Your task to perform on an android device: Open sound settings Image 0: 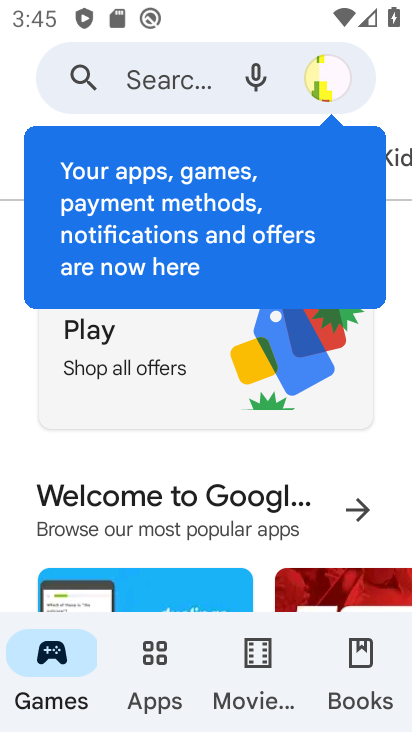
Step 0: press back button
Your task to perform on an android device: Open sound settings Image 1: 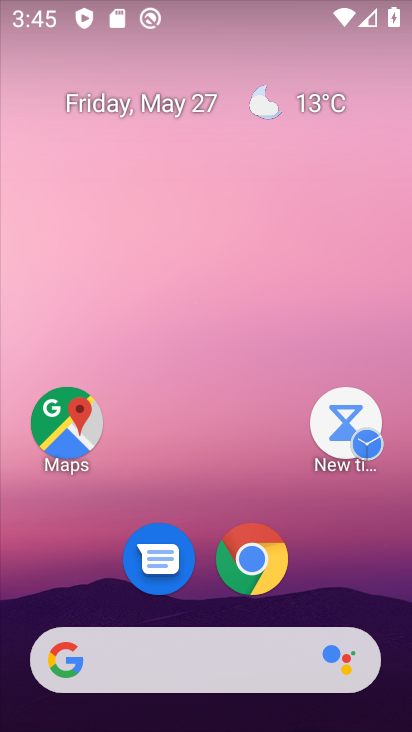
Step 1: drag from (366, 621) to (187, 28)
Your task to perform on an android device: Open sound settings Image 2: 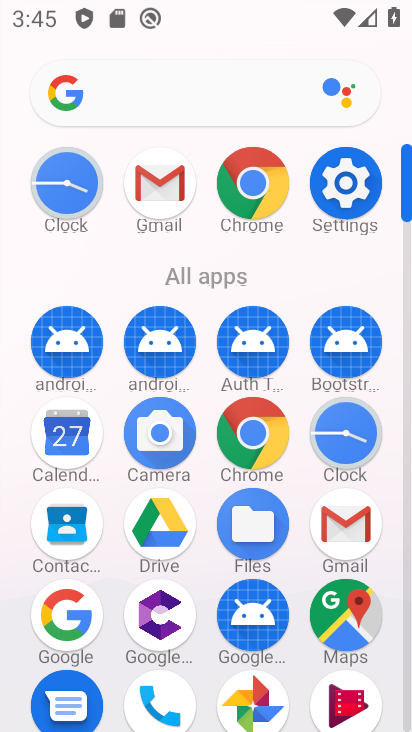
Step 2: click (333, 191)
Your task to perform on an android device: Open sound settings Image 3: 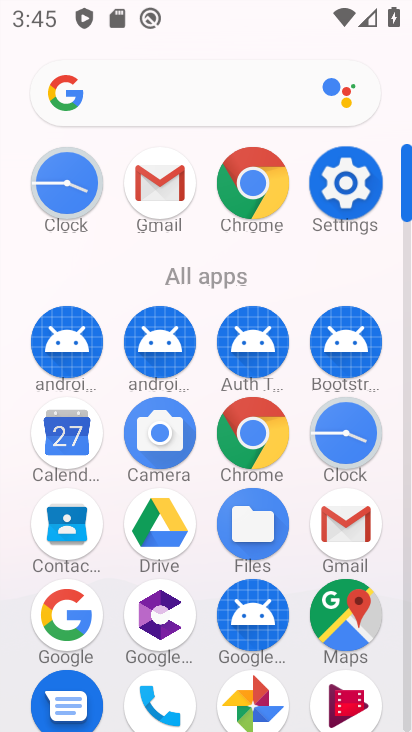
Step 3: click (333, 191)
Your task to perform on an android device: Open sound settings Image 4: 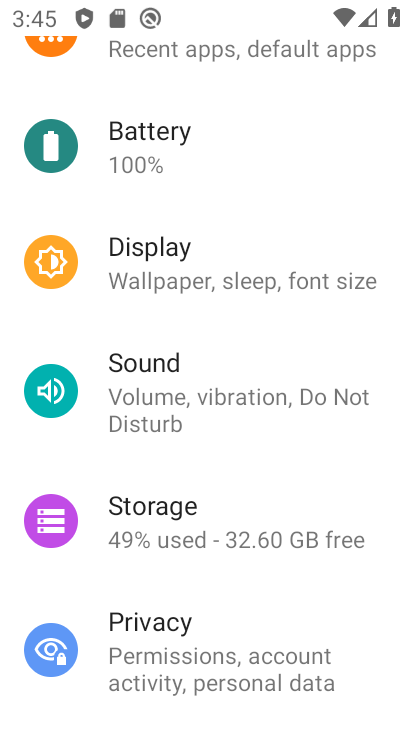
Step 4: click (333, 191)
Your task to perform on an android device: Open sound settings Image 5: 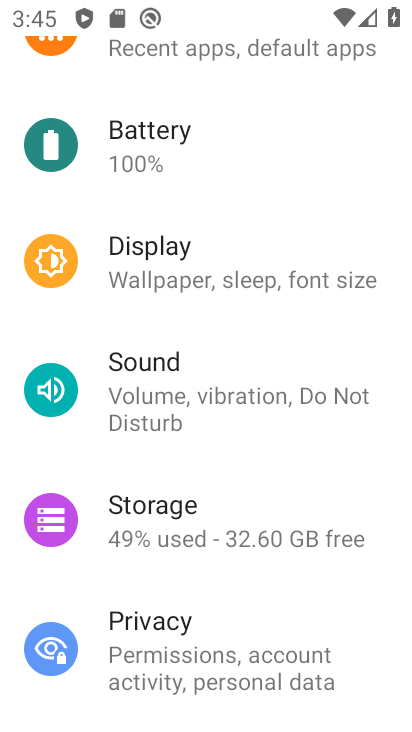
Step 5: click (333, 191)
Your task to perform on an android device: Open sound settings Image 6: 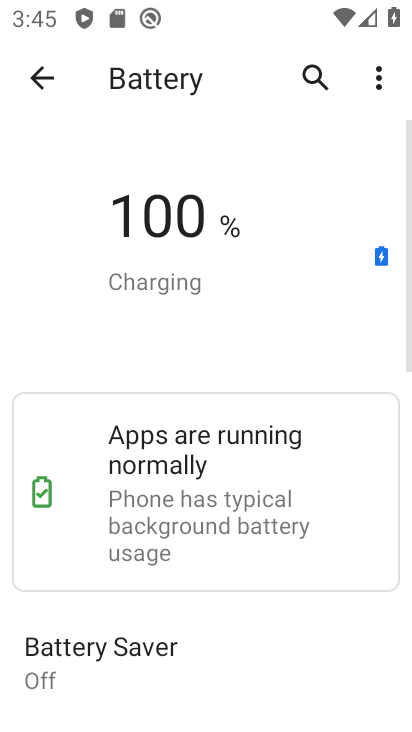
Step 6: click (34, 74)
Your task to perform on an android device: Open sound settings Image 7: 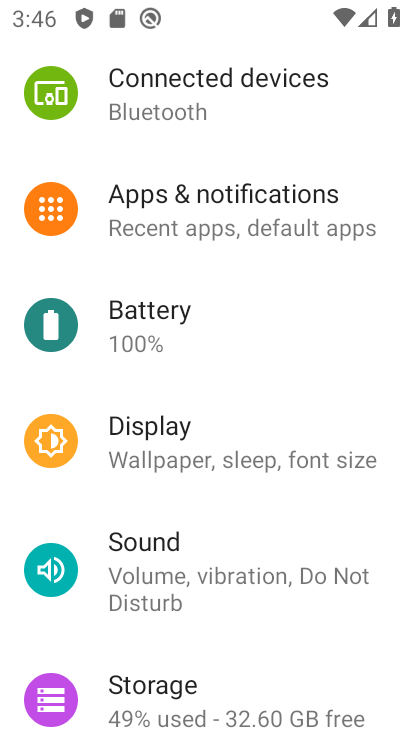
Step 7: click (145, 563)
Your task to perform on an android device: Open sound settings Image 8: 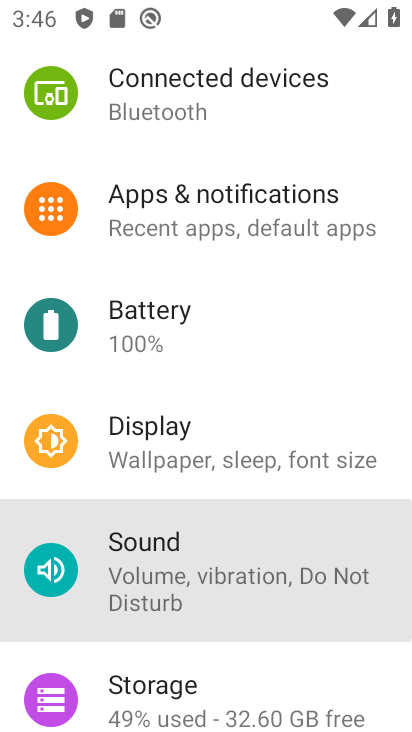
Step 8: click (148, 565)
Your task to perform on an android device: Open sound settings Image 9: 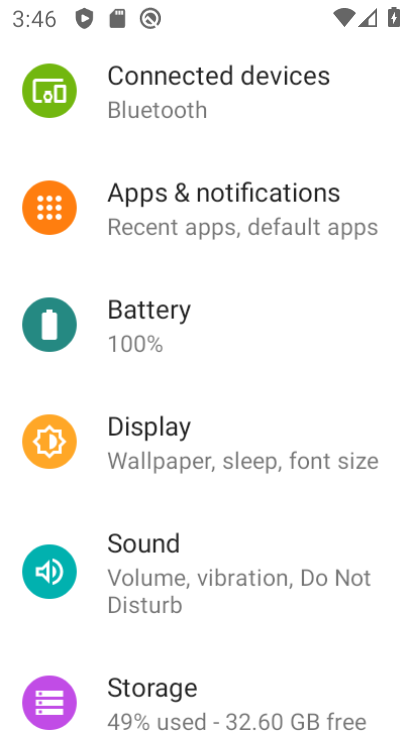
Step 9: click (148, 560)
Your task to perform on an android device: Open sound settings Image 10: 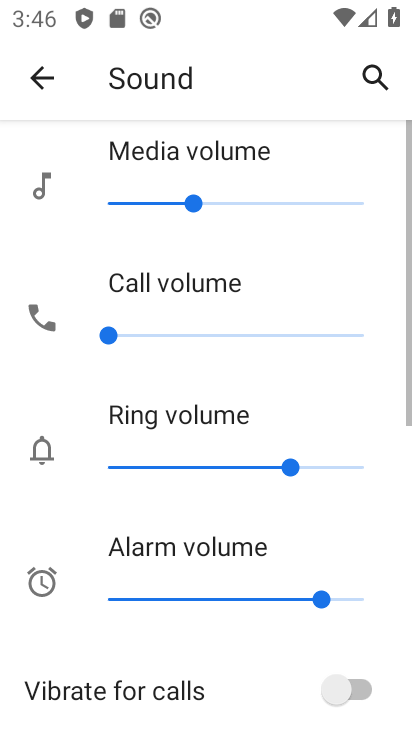
Step 10: click (148, 559)
Your task to perform on an android device: Open sound settings Image 11: 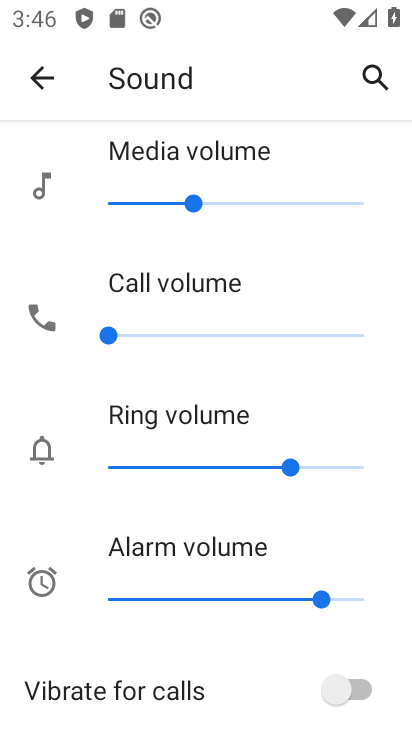
Step 11: drag from (167, 426) to (146, 166)
Your task to perform on an android device: Open sound settings Image 12: 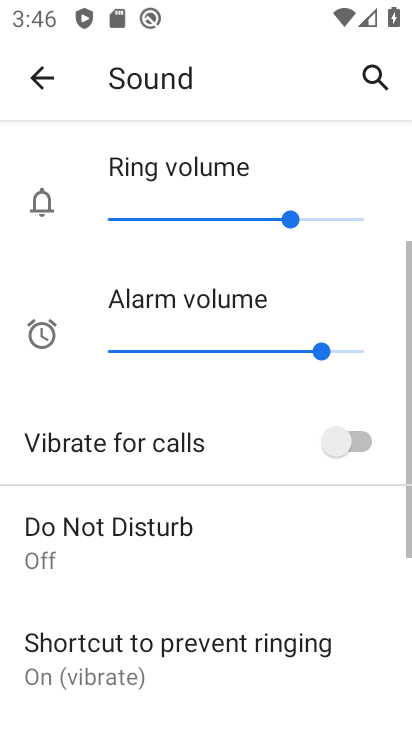
Step 12: drag from (145, 373) to (148, 147)
Your task to perform on an android device: Open sound settings Image 13: 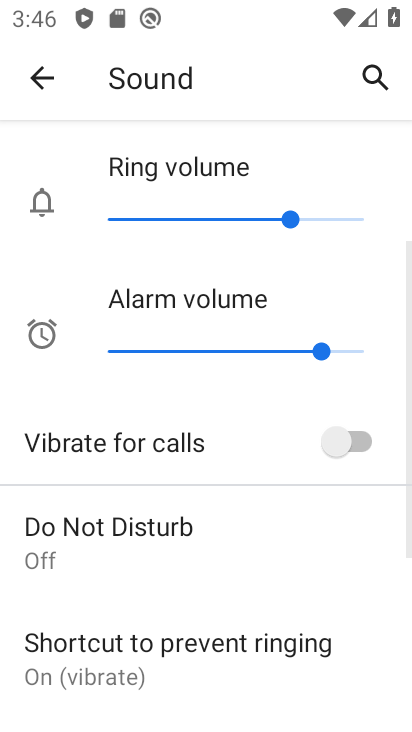
Step 13: drag from (168, 384) to (168, 142)
Your task to perform on an android device: Open sound settings Image 14: 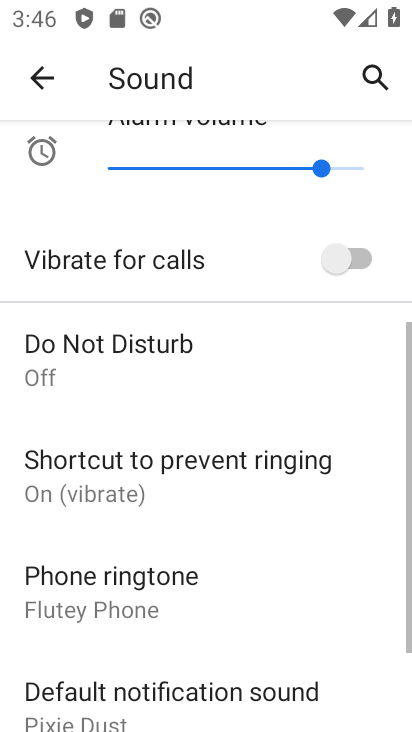
Step 14: drag from (161, 441) to (160, 179)
Your task to perform on an android device: Open sound settings Image 15: 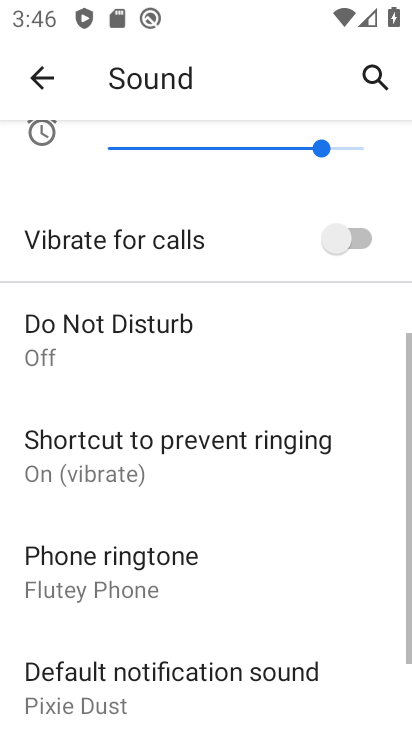
Step 15: drag from (150, 499) to (155, 206)
Your task to perform on an android device: Open sound settings Image 16: 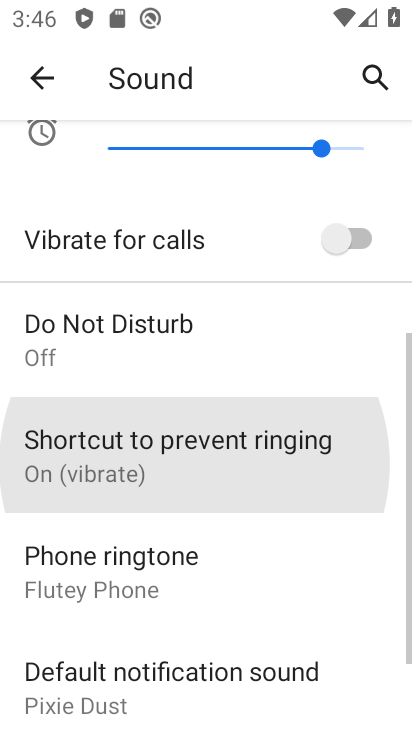
Step 16: drag from (127, 554) to (214, 181)
Your task to perform on an android device: Open sound settings Image 17: 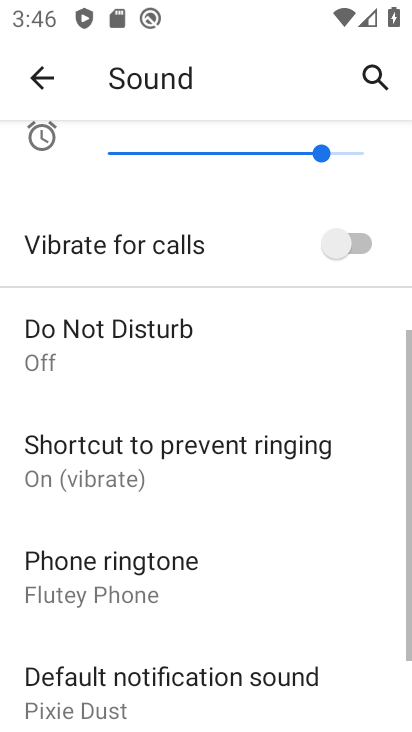
Step 17: drag from (181, 512) to (145, 159)
Your task to perform on an android device: Open sound settings Image 18: 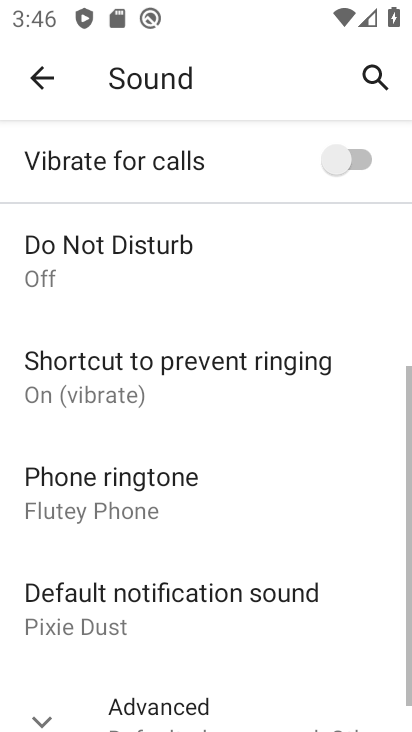
Step 18: click (95, 250)
Your task to perform on an android device: Open sound settings Image 19: 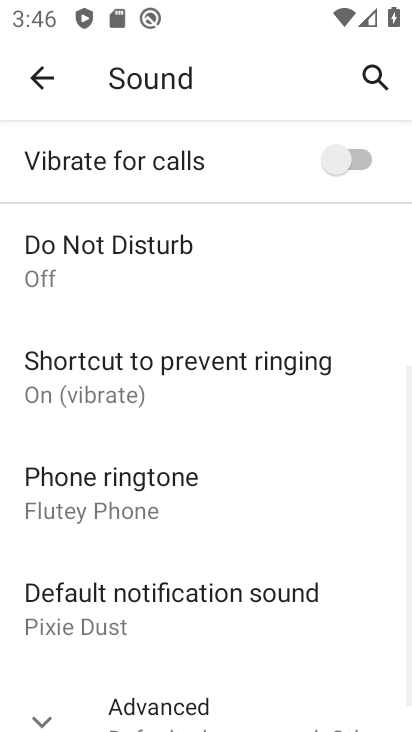
Step 19: drag from (120, 574) to (147, 254)
Your task to perform on an android device: Open sound settings Image 20: 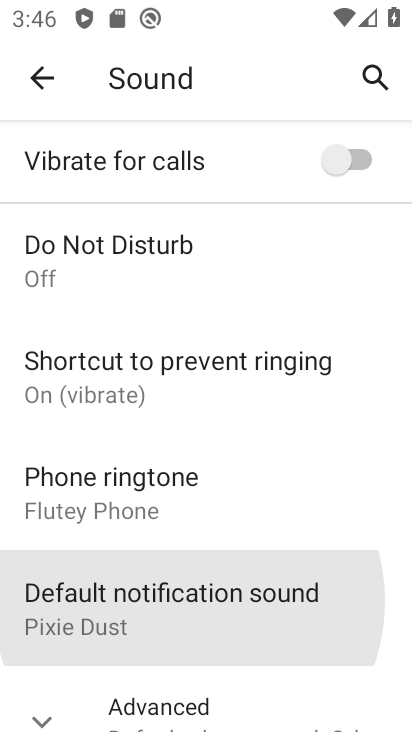
Step 20: drag from (155, 538) to (198, 193)
Your task to perform on an android device: Open sound settings Image 21: 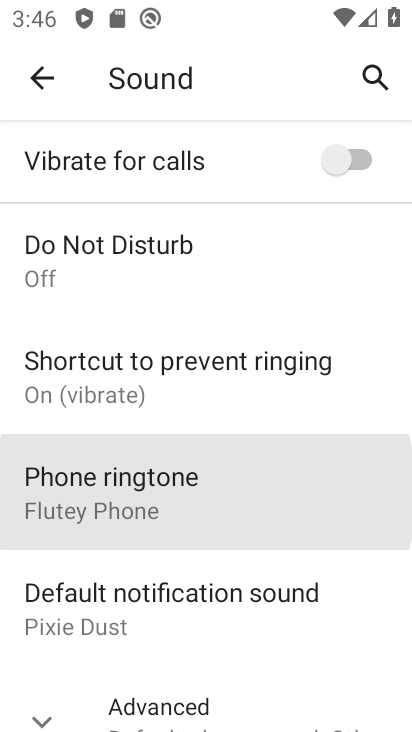
Step 21: drag from (184, 458) to (184, 200)
Your task to perform on an android device: Open sound settings Image 22: 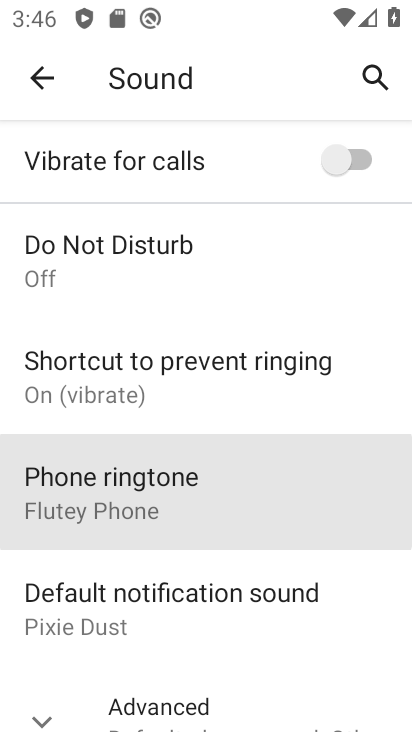
Step 22: drag from (180, 359) to (182, 211)
Your task to perform on an android device: Open sound settings Image 23: 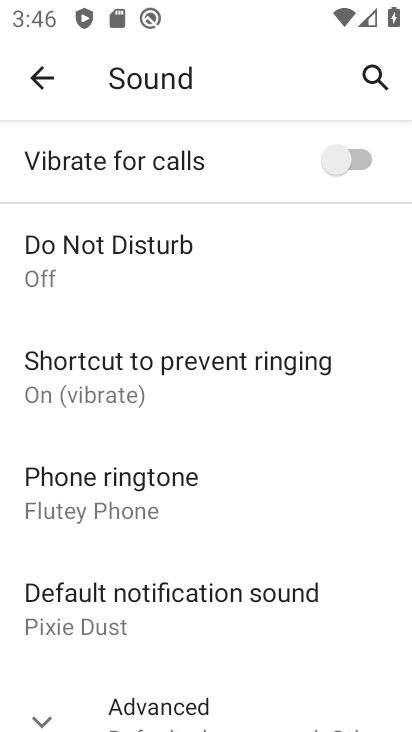
Step 23: click (151, 293)
Your task to perform on an android device: Open sound settings Image 24: 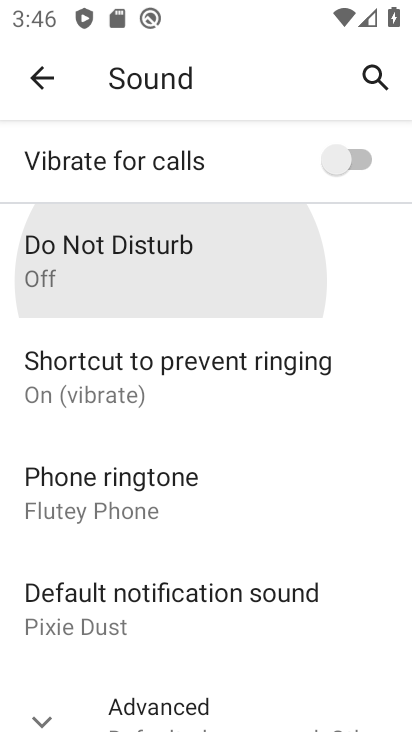
Step 24: task complete